Your task to perform on an android device: check the backup settings in the google photos Image 0: 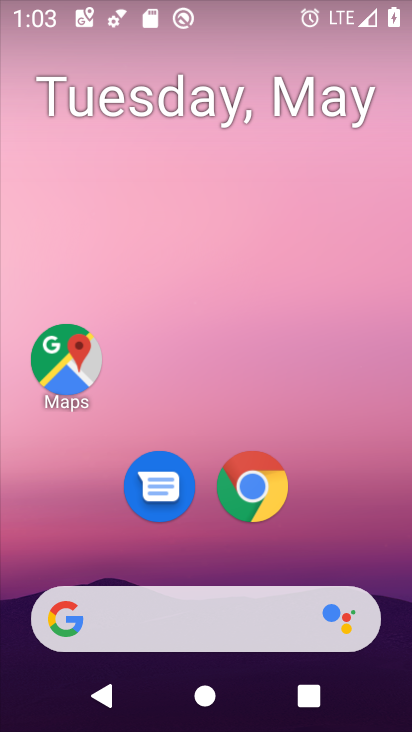
Step 0: drag from (16, 602) to (285, 207)
Your task to perform on an android device: check the backup settings in the google photos Image 1: 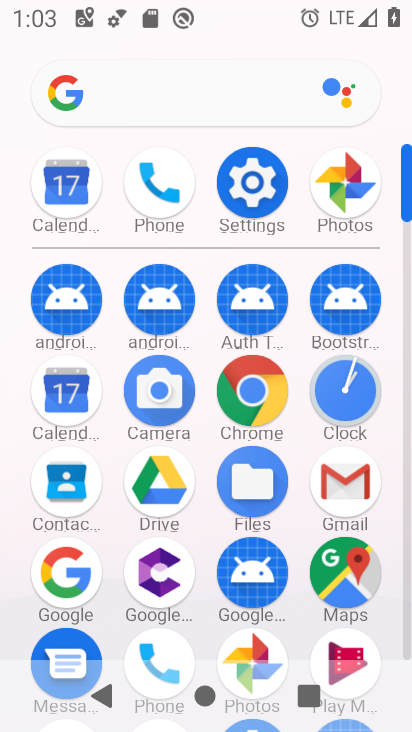
Step 1: click (359, 186)
Your task to perform on an android device: check the backup settings in the google photos Image 2: 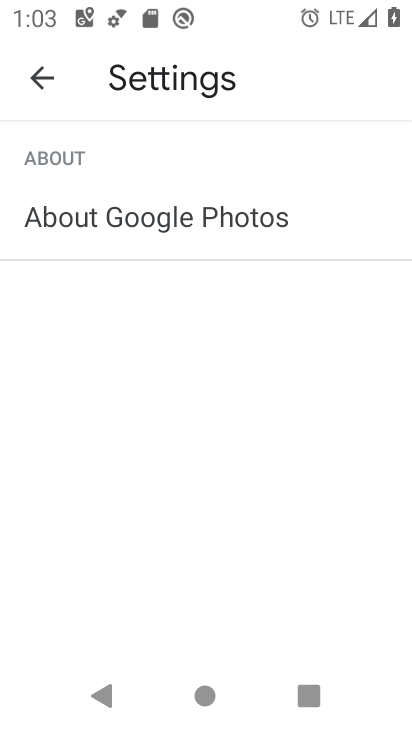
Step 2: click (37, 71)
Your task to perform on an android device: check the backup settings in the google photos Image 3: 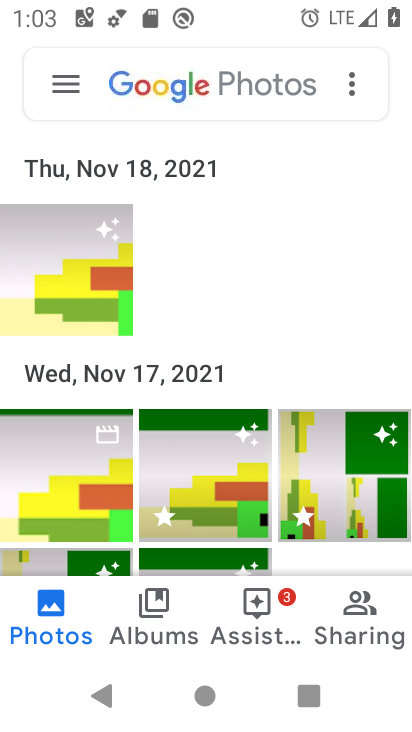
Step 3: click (73, 88)
Your task to perform on an android device: check the backup settings in the google photos Image 4: 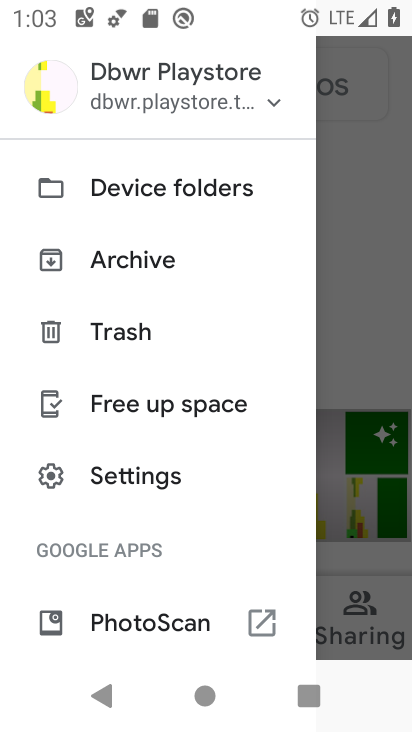
Step 4: click (123, 477)
Your task to perform on an android device: check the backup settings in the google photos Image 5: 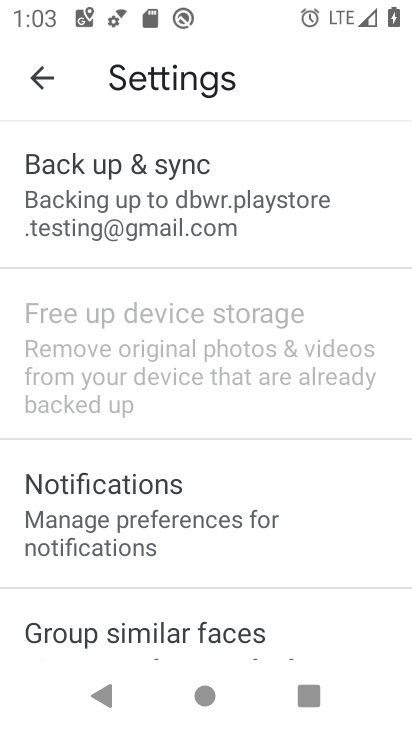
Step 5: click (124, 197)
Your task to perform on an android device: check the backup settings in the google photos Image 6: 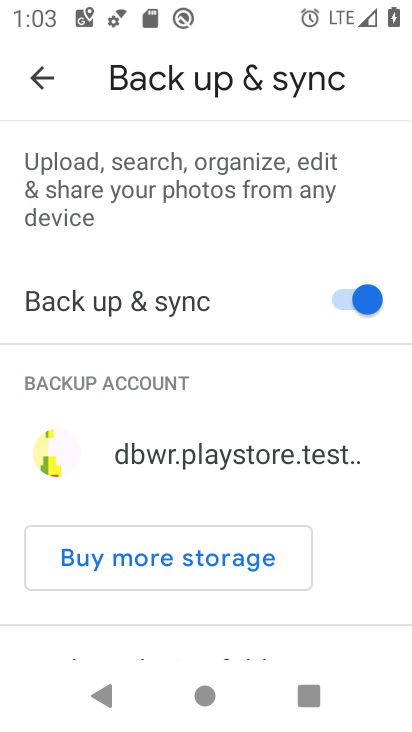
Step 6: task complete